Your task to perform on an android device: What's the weather today? Image 0: 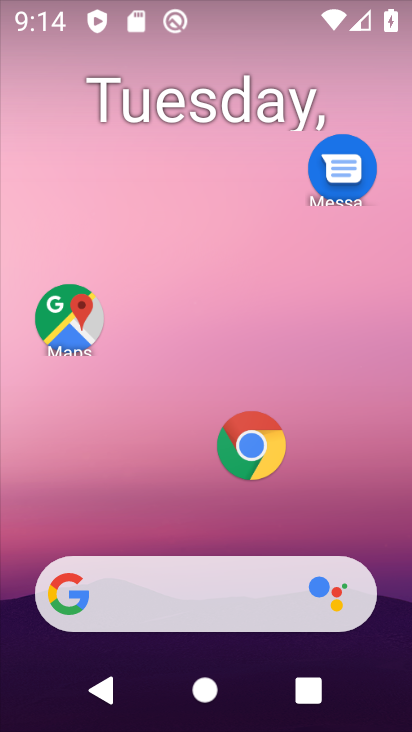
Step 0: drag from (265, 251) to (281, 194)
Your task to perform on an android device: What's the weather today? Image 1: 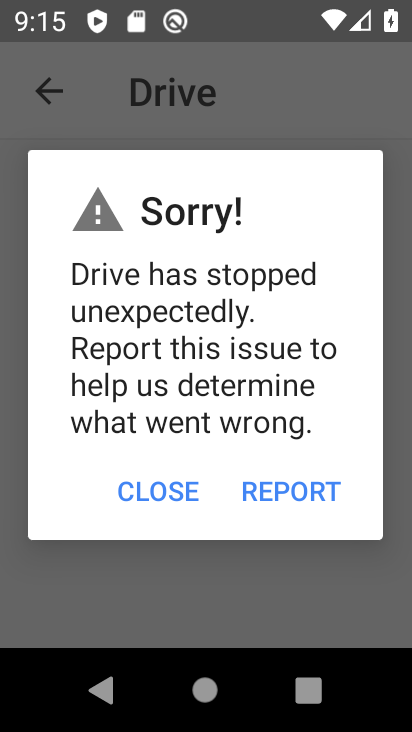
Step 1: press home button
Your task to perform on an android device: What's the weather today? Image 2: 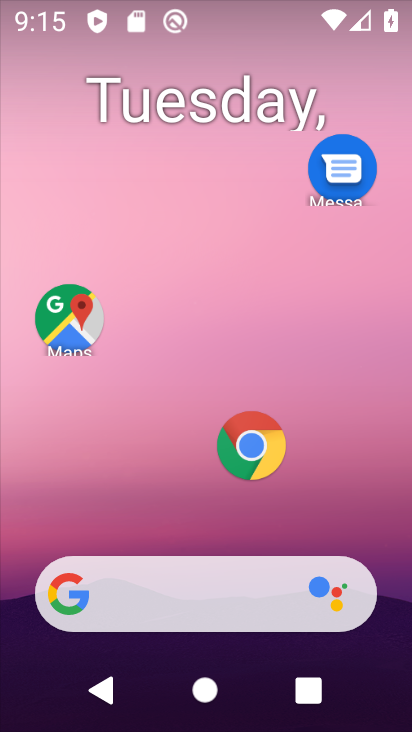
Step 2: click (234, 577)
Your task to perform on an android device: What's the weather today? Image 3: 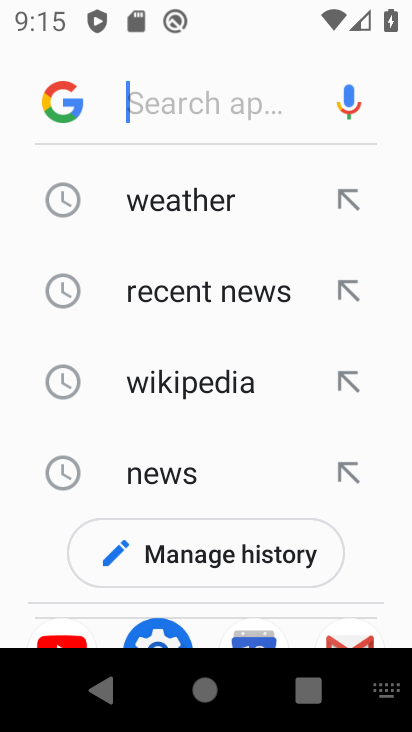
Step 3: click (166, 109)
Your task to perform on an android device: What's the weather today? Image 4: 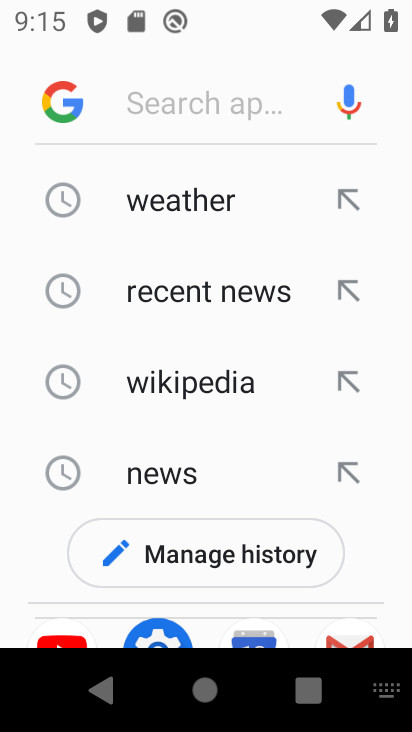
Step 4: type "What's the weather today?"
Your task to perform on an android device: What's the weather today? Image 5: 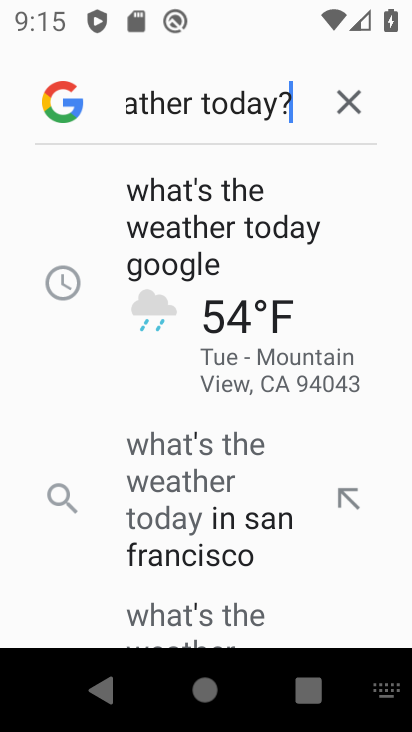
Step 5: task complete